Your task to perform on an android device: change the clock style Image 0: 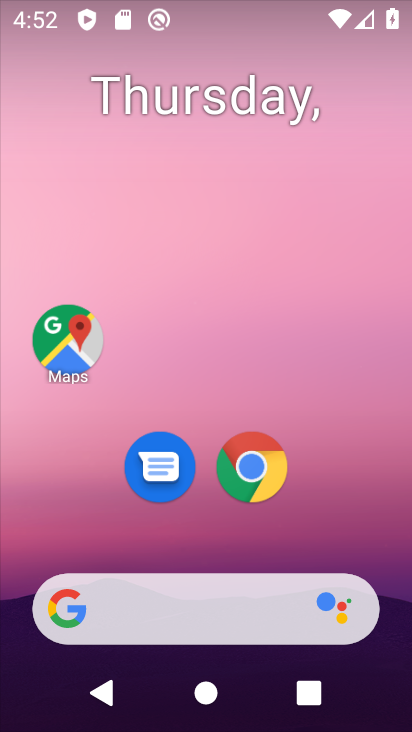
Step 0: drag from (328, 541) to (289, 15)
Your task to perform on an android device: change the clock style Image 1: 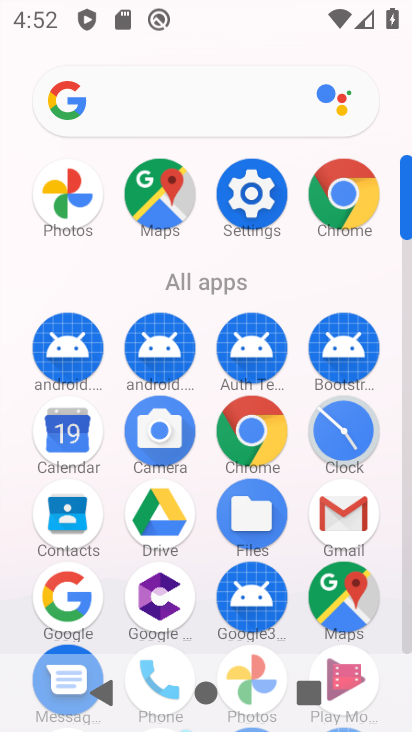
Step 1: click (344, 416)
Your task to perform on an android device: change the clock style Image 2: 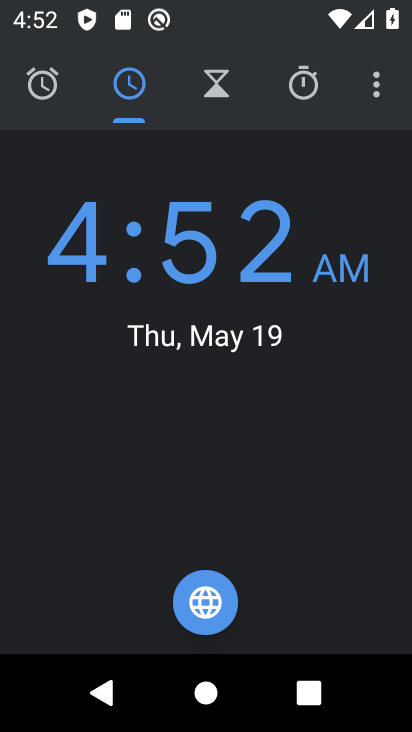
Step 2: click (385, 79)
Your task to perform on an android device: change the clock style Image 3: 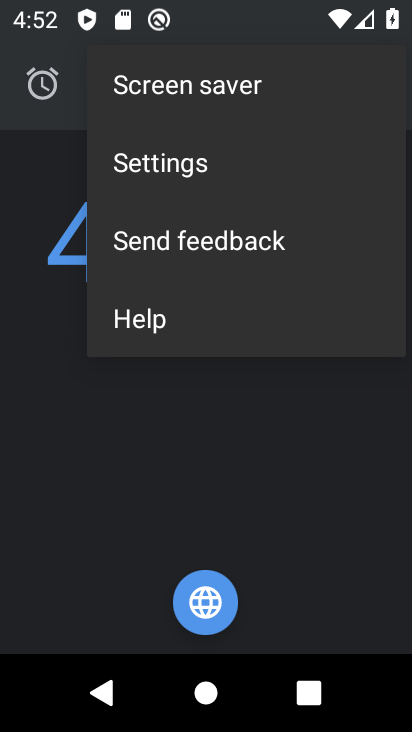
Step 3: click (309, 162)
Your task to perform on an android device: change the clock style Image 4: 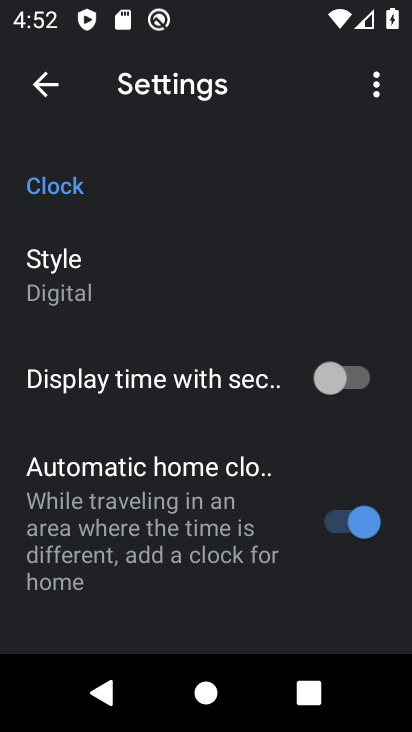
Step 4: click (204, 280)
Your task to perform on an android device: change the clock style Image 5: 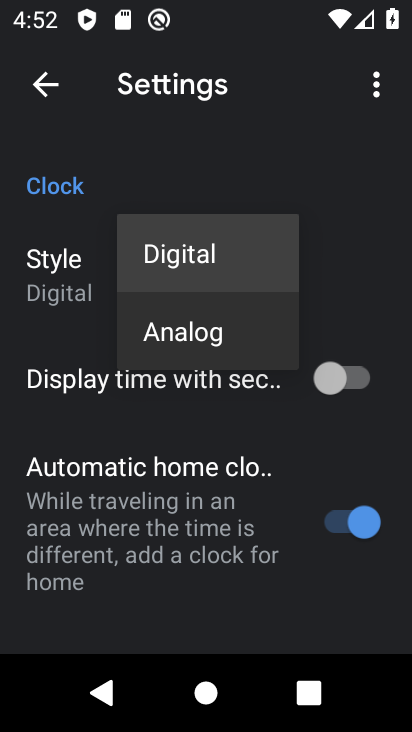
Step 5: click (202, 333)
Your task to perform on an android device: change the clock style Image 6: 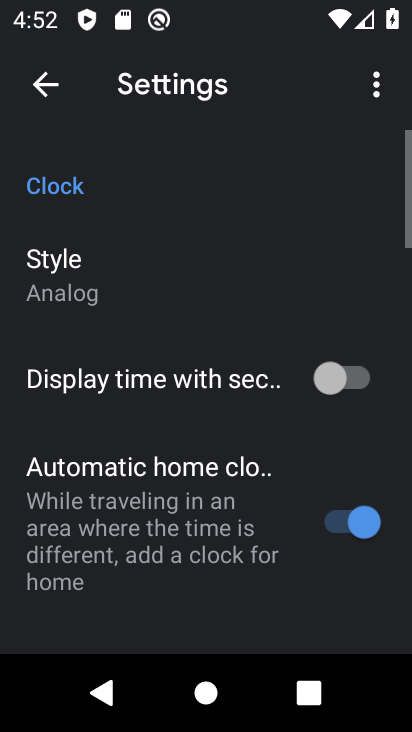
Step 6: task complete